Your task to perform on an android device: add a label to a message in the gmail app Image 0: 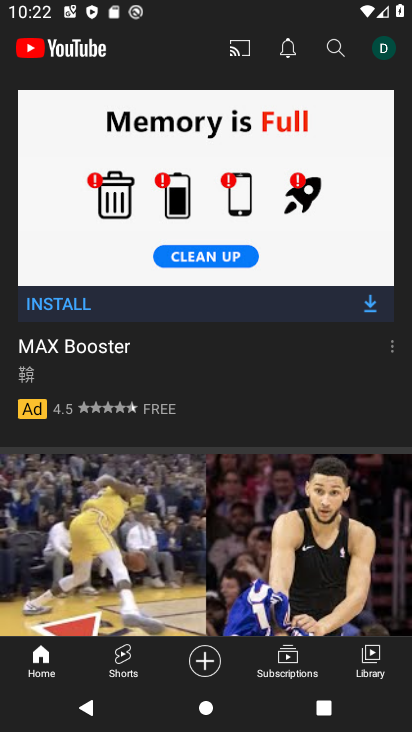
Step 0: press home button
Your task to perform on an android device: add a label to a message in the gmail app Image 1: 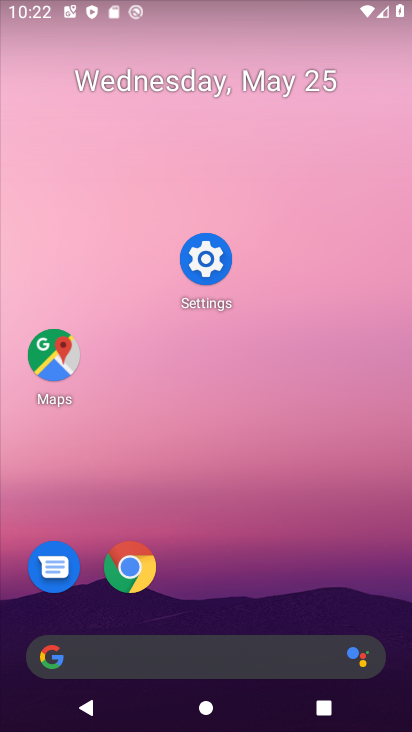
Step 1: drag from (240, 601) to (290, 49)
Your task to perform on an android device: add a label to a message in the gmail app Image 2: 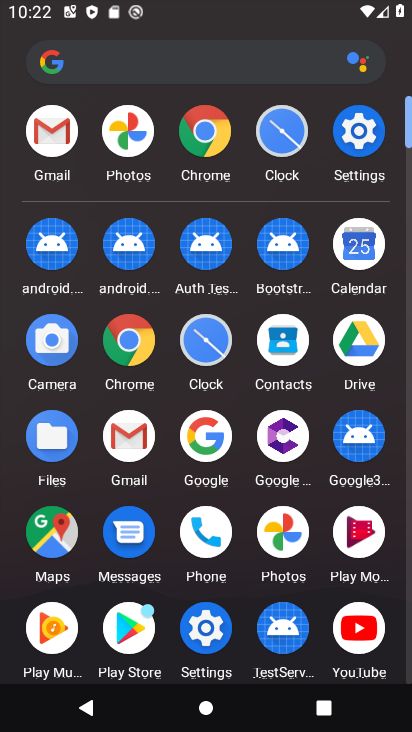
Step 2: click (53, 125)
Your task to perform on an android device: add a label to a message in the gmail app Image 3: 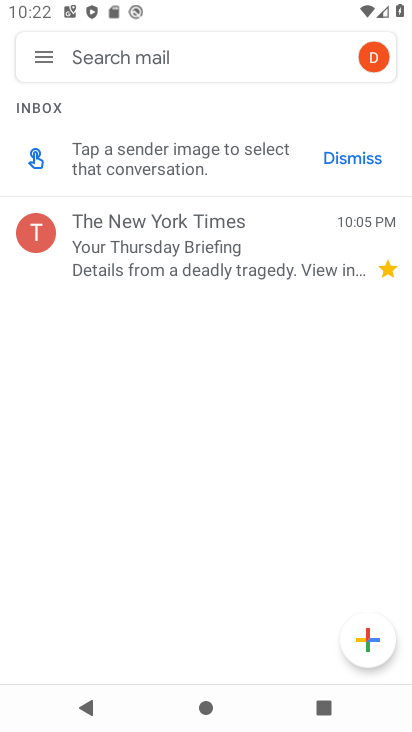
Step 3: click (130, 210)
Your task to perform on an android device: add a label to a message in the gmail app Image 4: 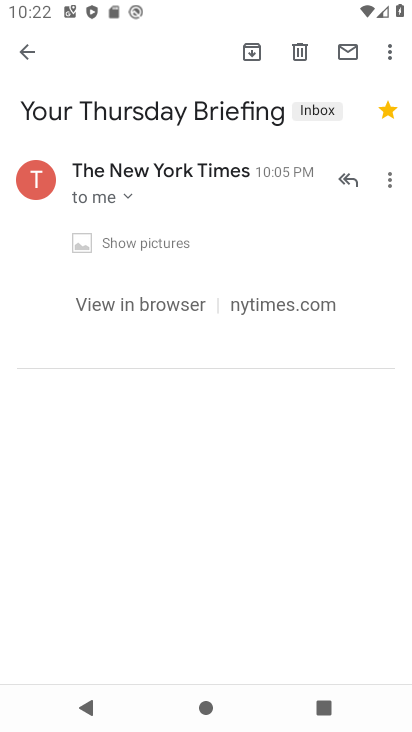
Step 4: click (390, 192)
Your task to perform on an android device: add a label to a message in the gmail app Image 5: 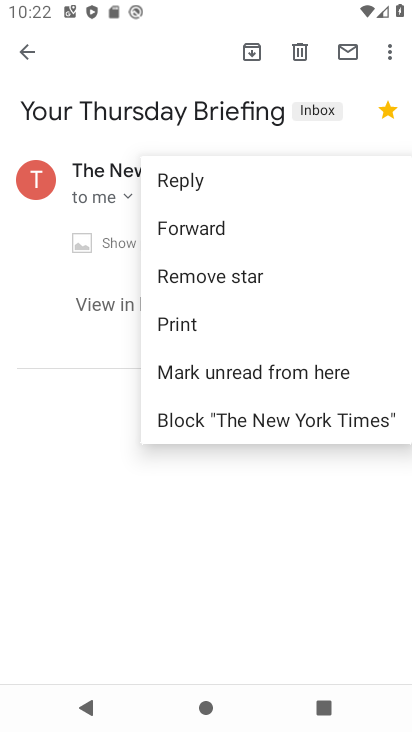
Step 5: click (202, 530)
Your task to perform on an android device: add a label to a message in the gmail app Image 6: 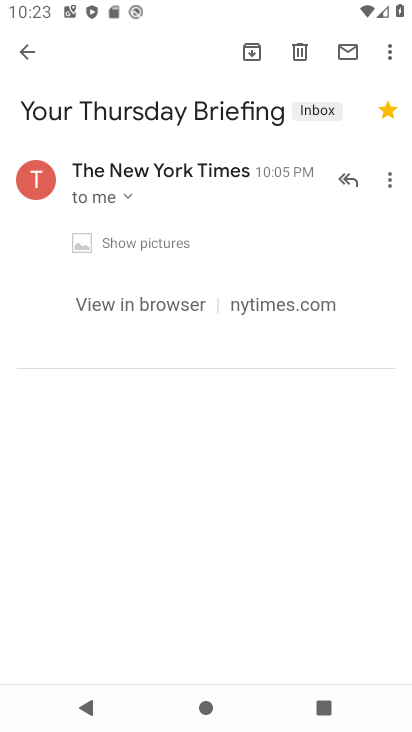
Step 6: click (388, 40)
Your task to perform on an android device: add a label to a message in the gmail app Image 7: 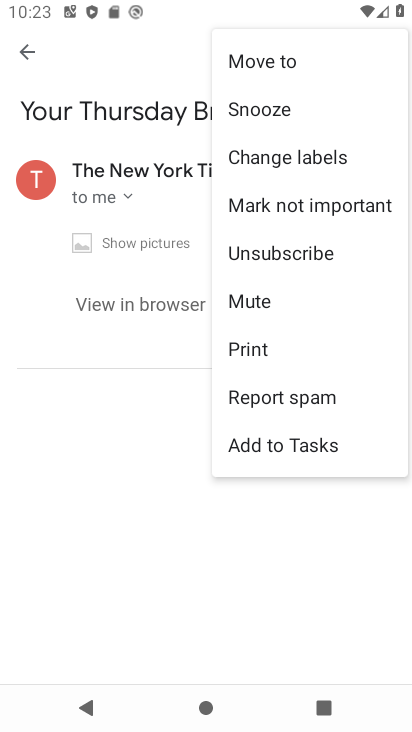
Step 7: click (277, 156)
Your task to perform on an android device: add a label to a message in the gmail app Image 8: 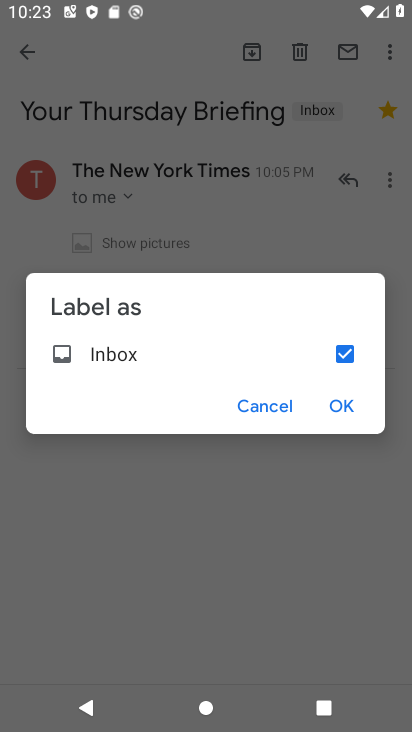
Step 8: click (358, 411)
Your task to perform on an android device: add a label to a message in the gmail app Image 9: 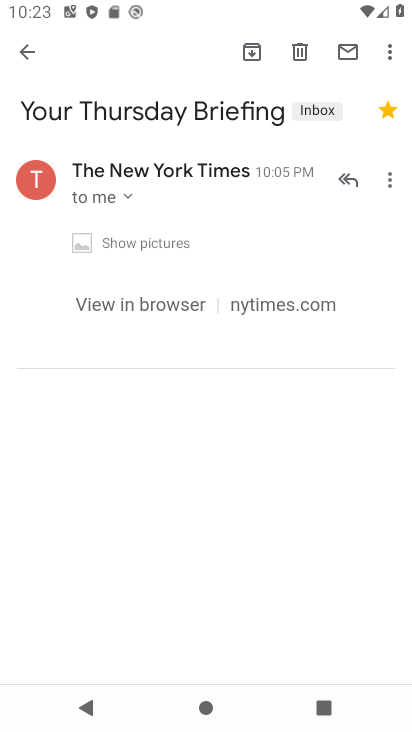
Step 9: task complete